Your task to perform on an android device: turn notification dots on Image 0: 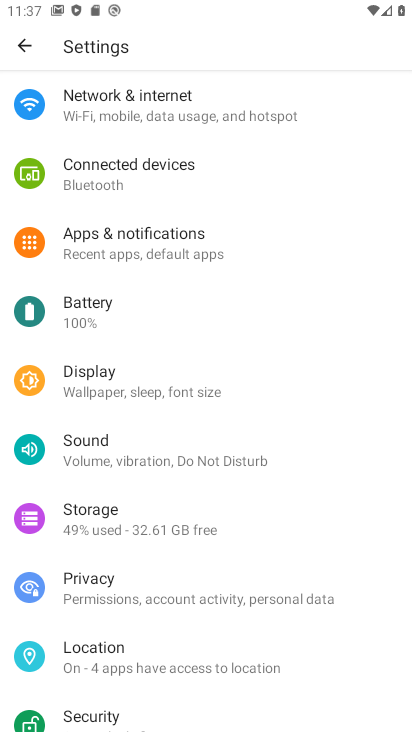
Step 0: drag from (69, 301) to (280, 703)
Your task to perform on an android device: turn notification dots on Image 1: 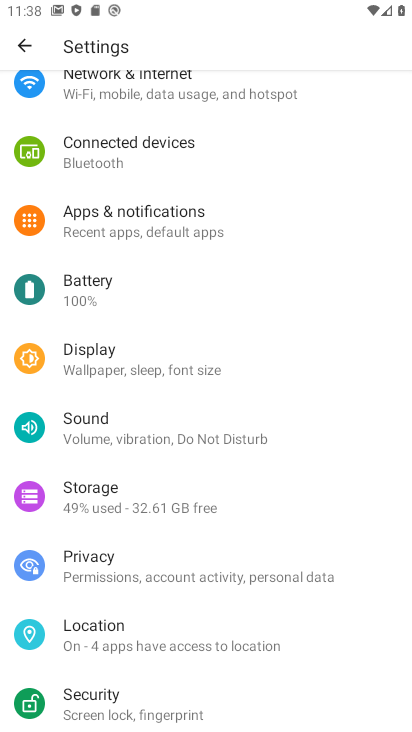
Step 1: click (51, 207)
Your task to perform on an android device: turn notification dots on Image 2: 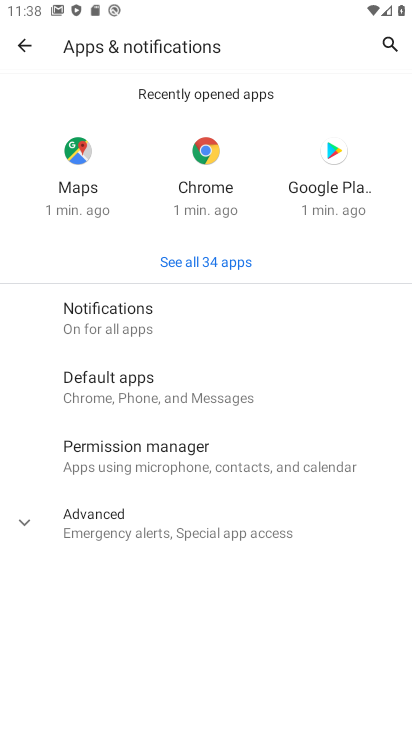
Step 2: click (65, 310)
Your task to perform on an android device: turn notification dots on Image 3: 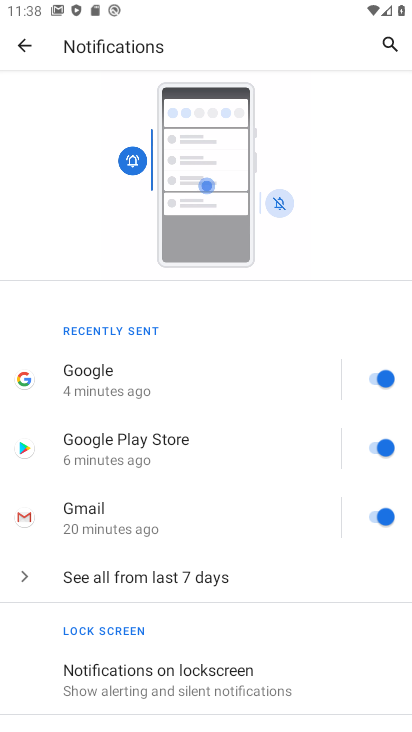
Step 3: drag from (310, 624) to (279, 58)
Your task to perform on an android device: turn notification dots on Image 4: 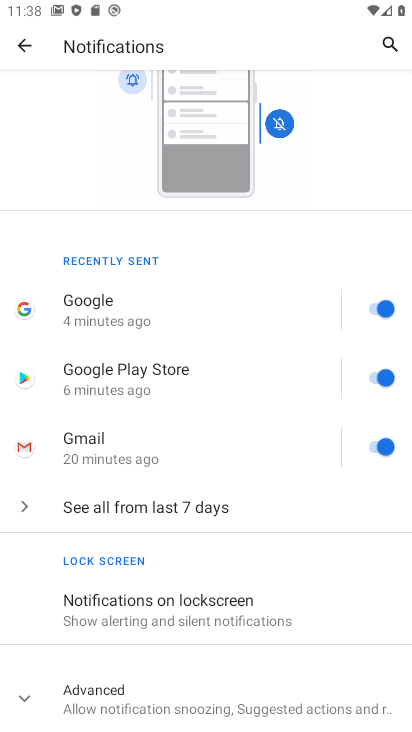
Step 4: click (103, 670)
Your task to perform on an android device: turn notification dots on Image 5: 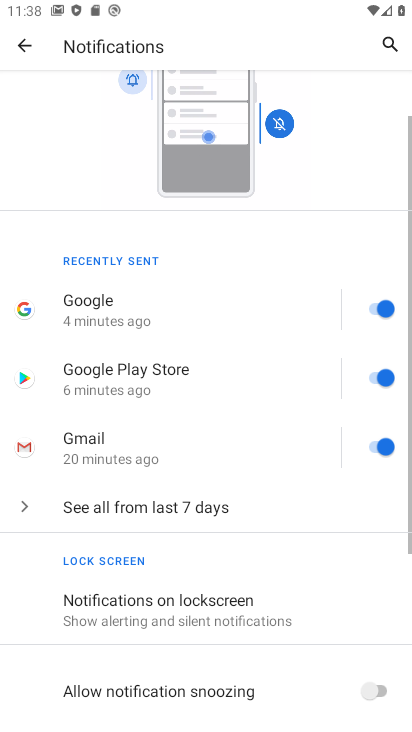
Step 5: task complete